Your task to perform on an android device: allow cookies in the chrome app Image 0: 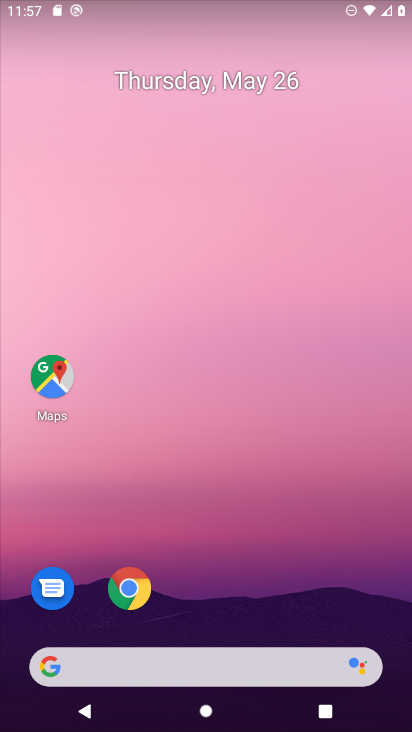
Step 0: click (126, 588)
Your task to perform on an android device: allow cookies in the chrome app Image 1: 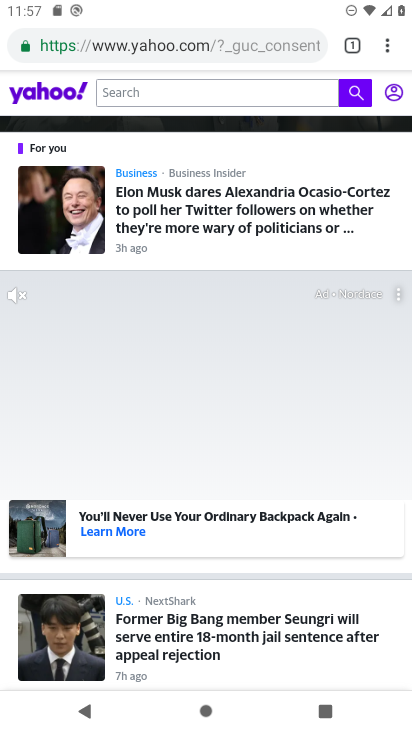
Step 1: click (382, 46)
Your task to perform on an android device: allow cookies in the chrome app Image 2: 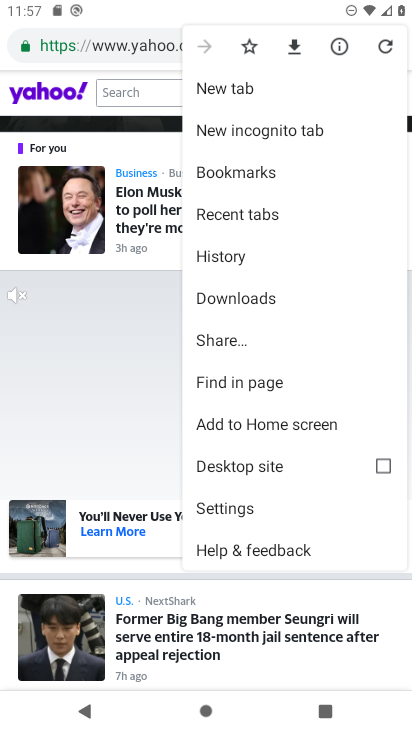
Step 2: click (236, 505)
Your task to perform on an android device: allow cookies in the chrome app Image 3: 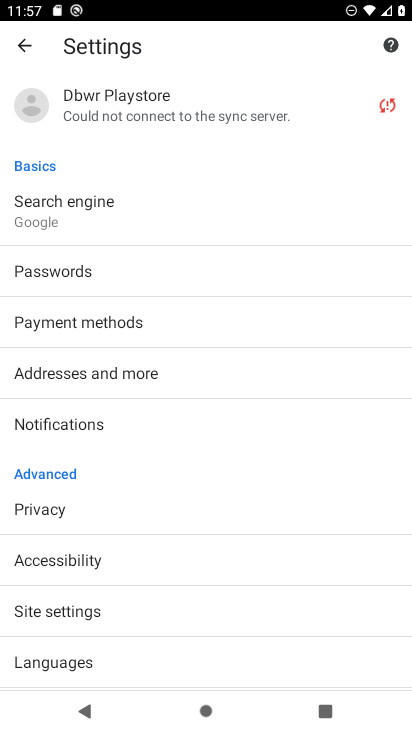
Step 3: click (68, 608)
Your task to perform on an android device: allow cookies in the chrome app Image 4: 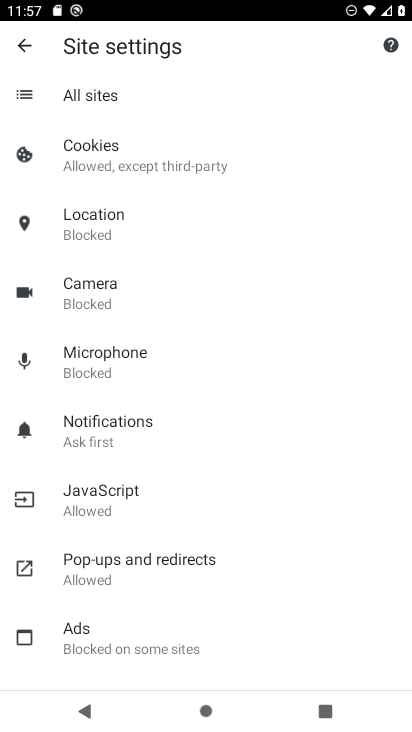
Step 4: click (91, 148)
Your task to perform on an android device: allow cookies in the chrome app Image 5: 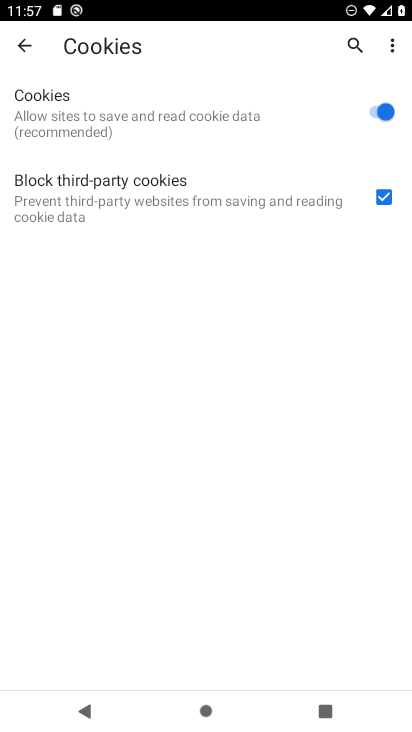
Step 5: task complete